Your task to perform on an android device: open sync settings in chrome Image 0: 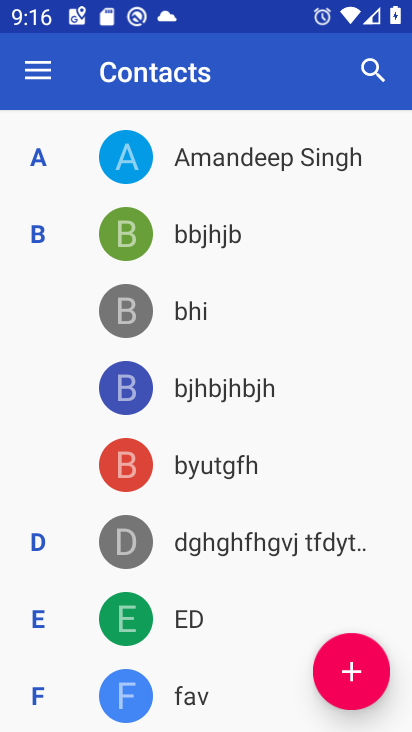
Step 0: press home button
Your task to perform on an android device: open sync settings in chrome Image 1: 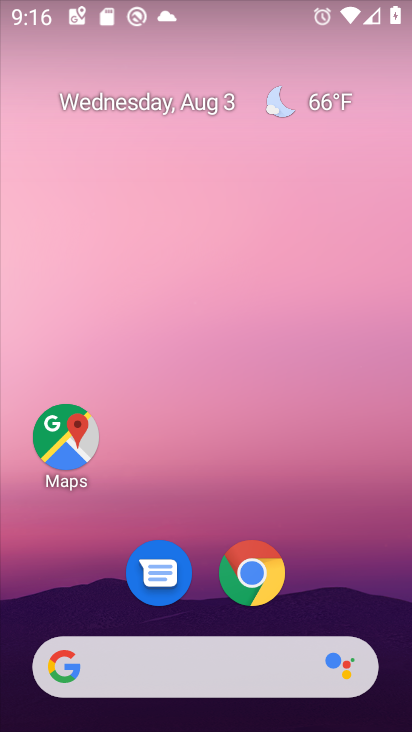
Step 1: click (252, 575)
Your task to perform on an android device: open sync settings in chrome Image 2: 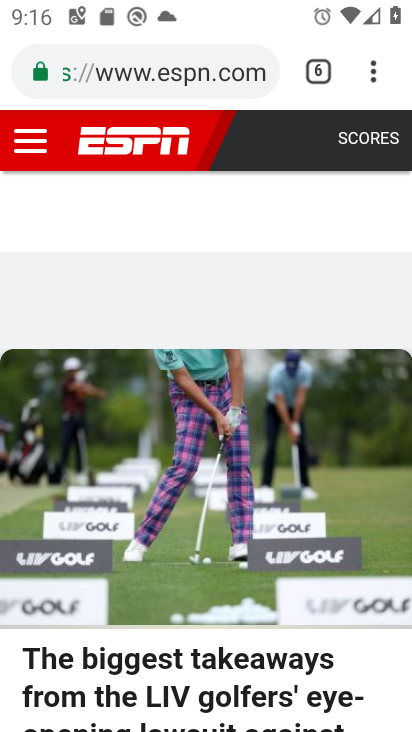
Step 2: click (372, 75)
Your task to perform on an android device: open sync settings in chrome Image 3: 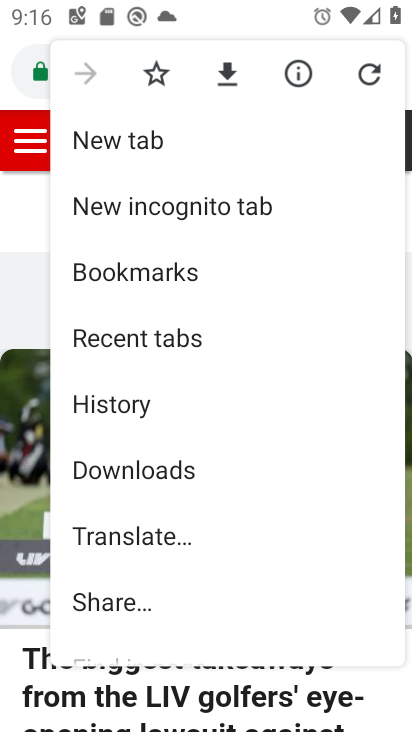
Step 3: drag from (218, 513) to (210, 250)
Your task to perform on an android device: open sync settings in chrome Image 4: 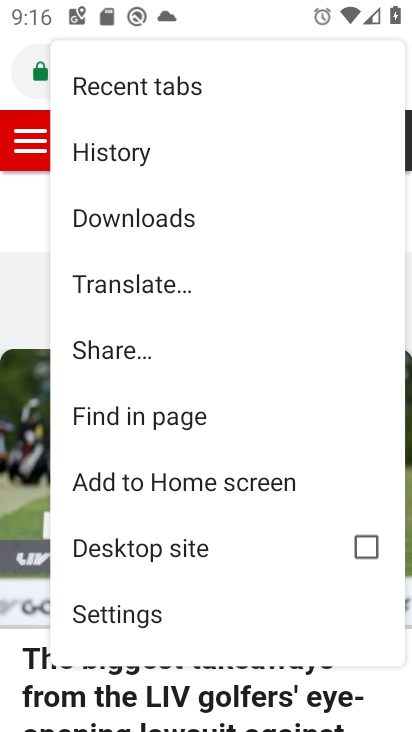
Step 4: click (144, 616)
Your task to perform on an android device: open sync settings in chrome Image 5: 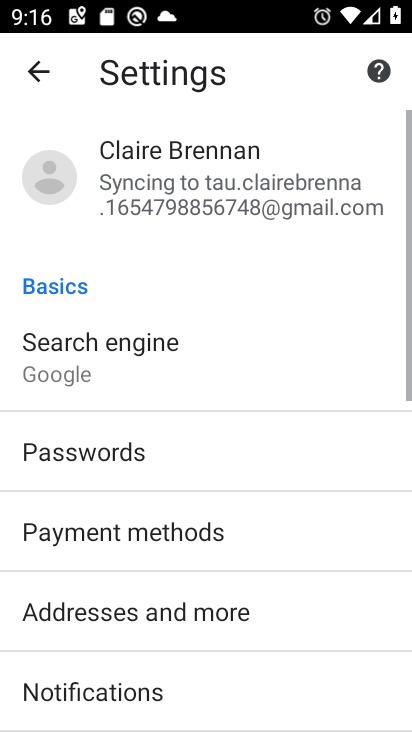
Step 5: click (192, 171)
Your task to perform on an android device: open sync settings in chrome Image 6: 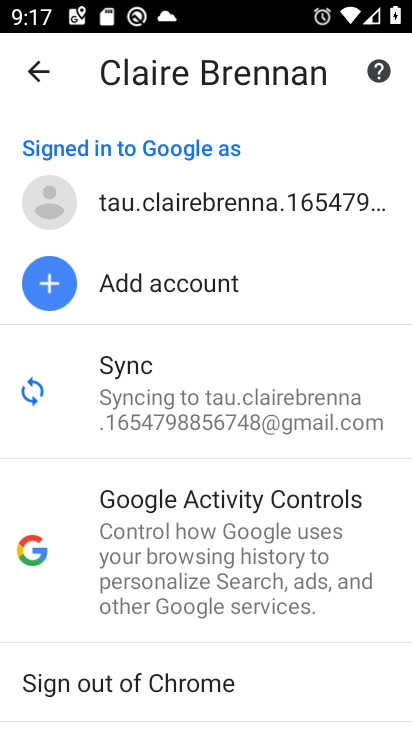
Step 6: click (137, 382)
Your task to perform on an android device: open sync settings in chrome Image 7: 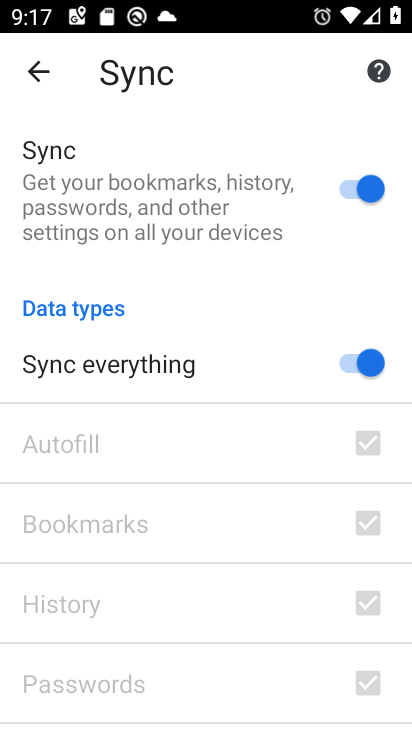
Step 7: task complete